Your task to perform on an android device: Open the phone app and click the voicemail tab. Image 0: 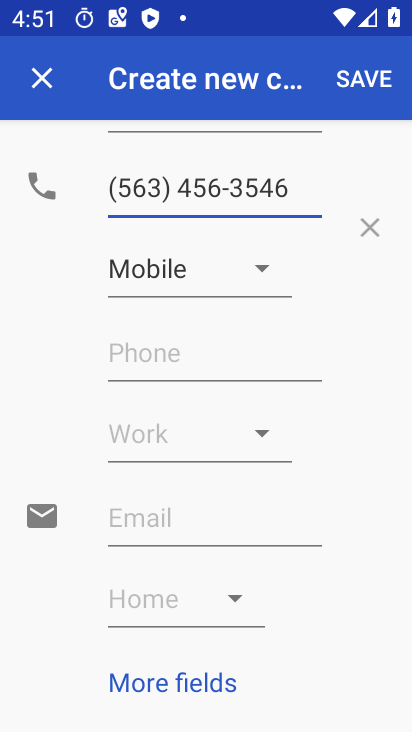
Step 0: press home button
Your task to perform on an android device: Open the phone app and click the voicemail tab. Image 1: 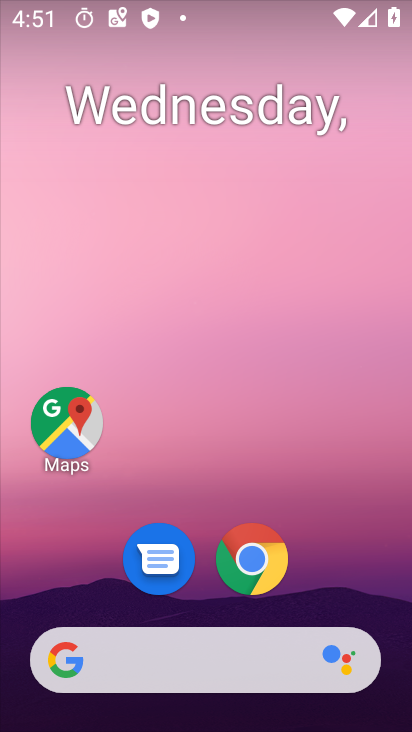
Step 1: drag from (360, 562) to (176, 35)
Your task to perform on an android device: Open the phone app and click the voicemail tab. Image 2: 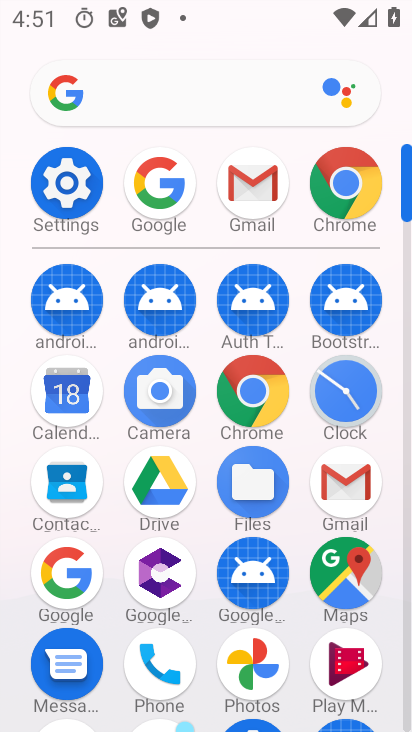
Step 2: click (165, 665)
Your task to perform on an android device: Open the phone app and click the voicemail tab. Image 3: 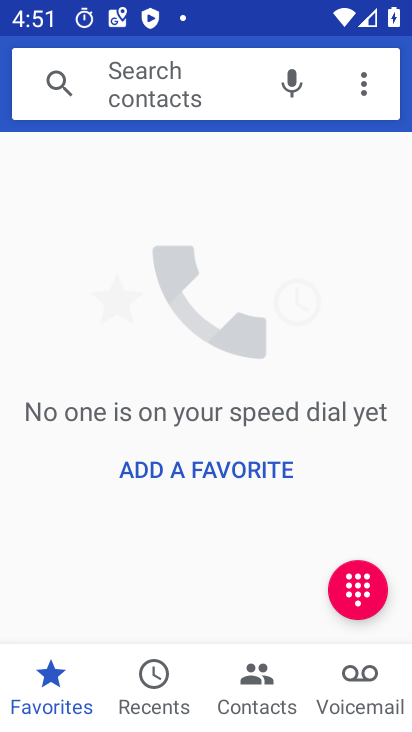
Step 3: click (359, 678)
Your task to perform on an android device: Open the phone app and click the voicemail tab. Image 4: 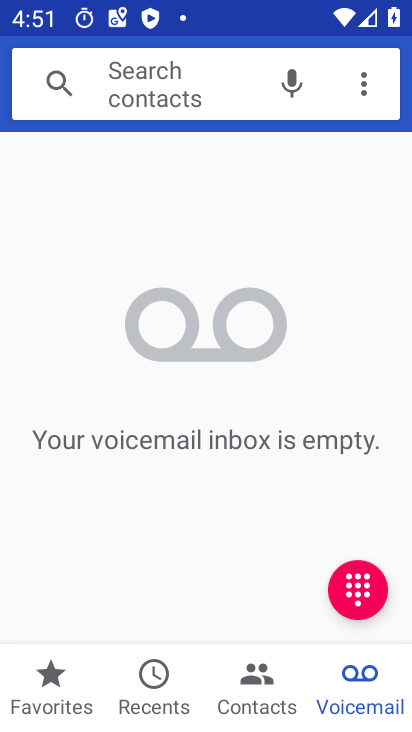
Step 4: task complete